Your task to perform on an android device: uninstall "Upside-Cash back on gas & food" Image 0: 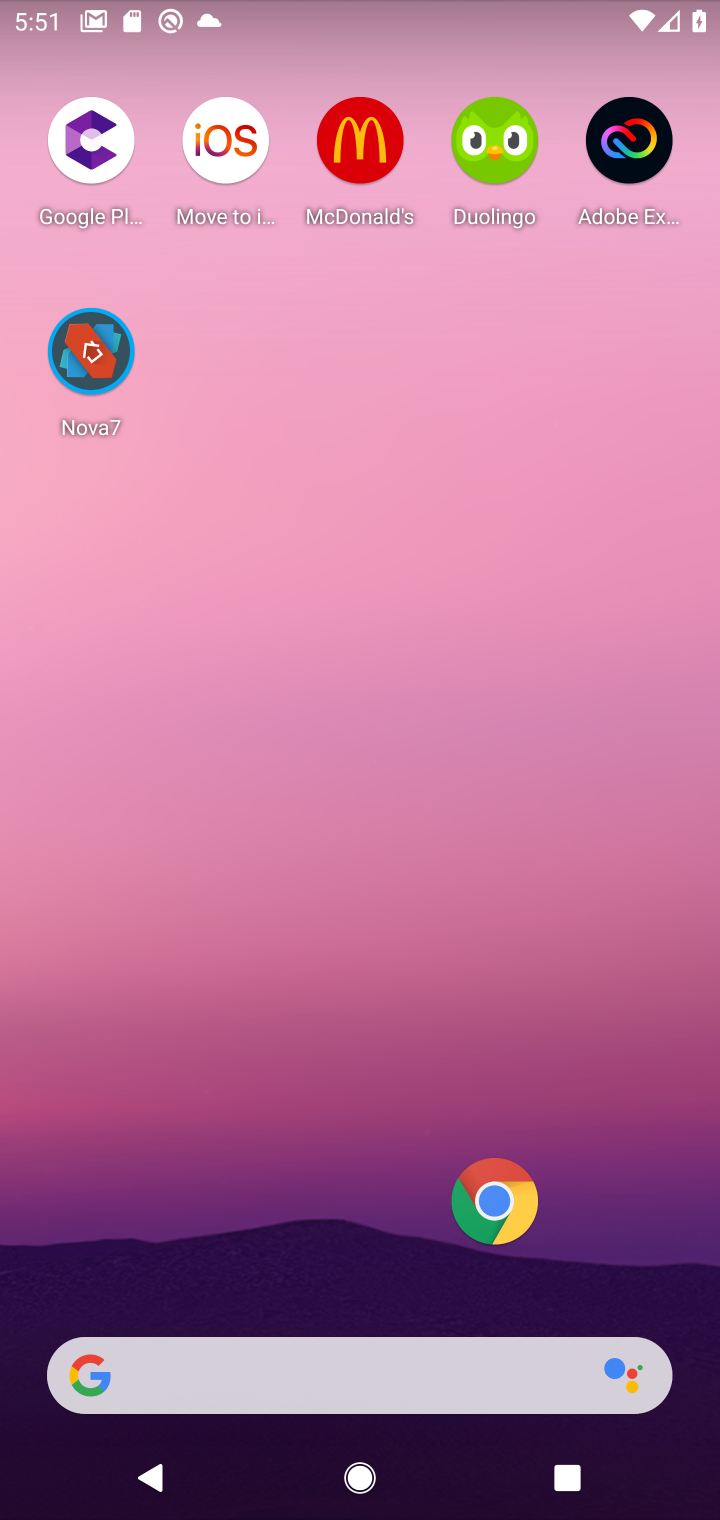
Step 0: drag from (331, 1221) to (352, 117)
Your task to perform on an android device: uninstall "Upside-Cash back on gas & food" Image 1: 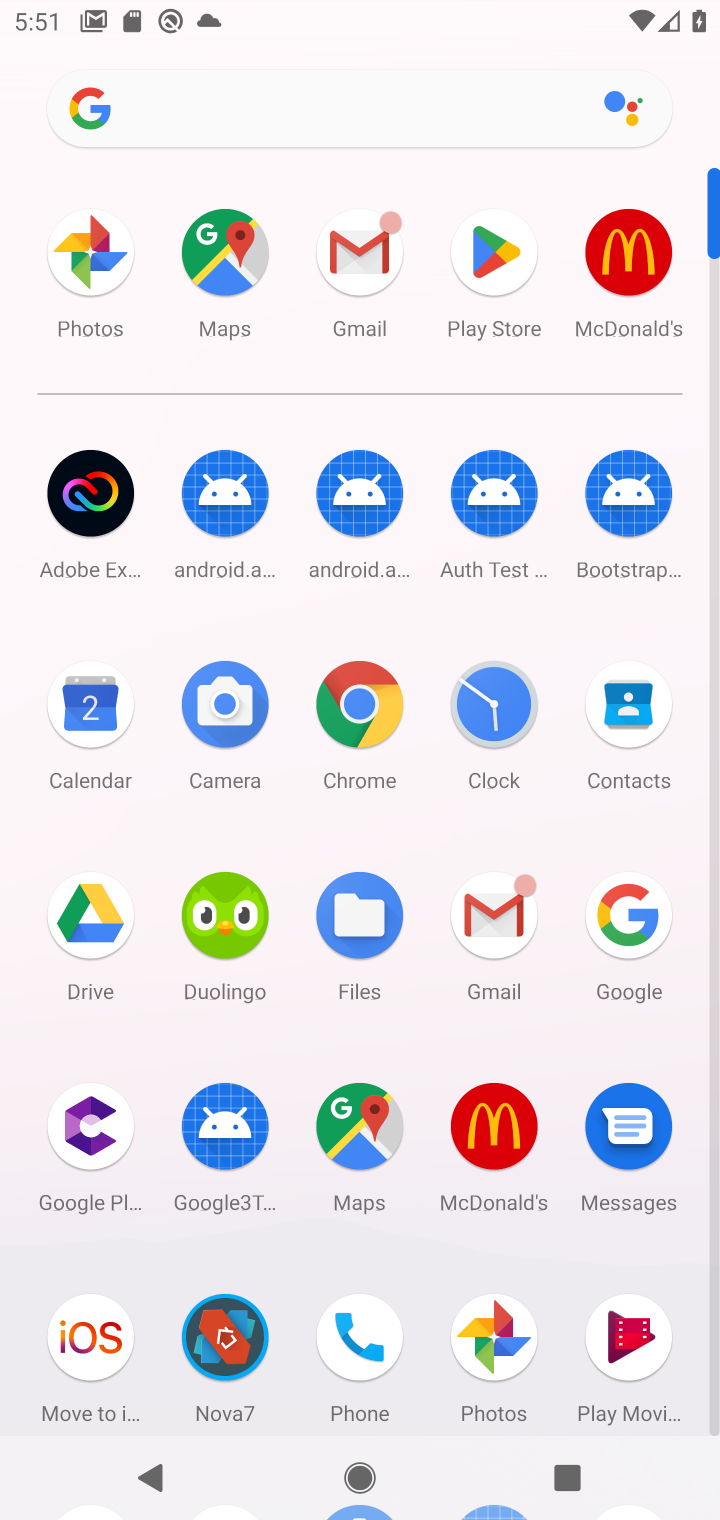
Step 1: click (459, 259)
Your task to perform on an android device: uninstall "Upside-Cash back on gas & food" Image 2: 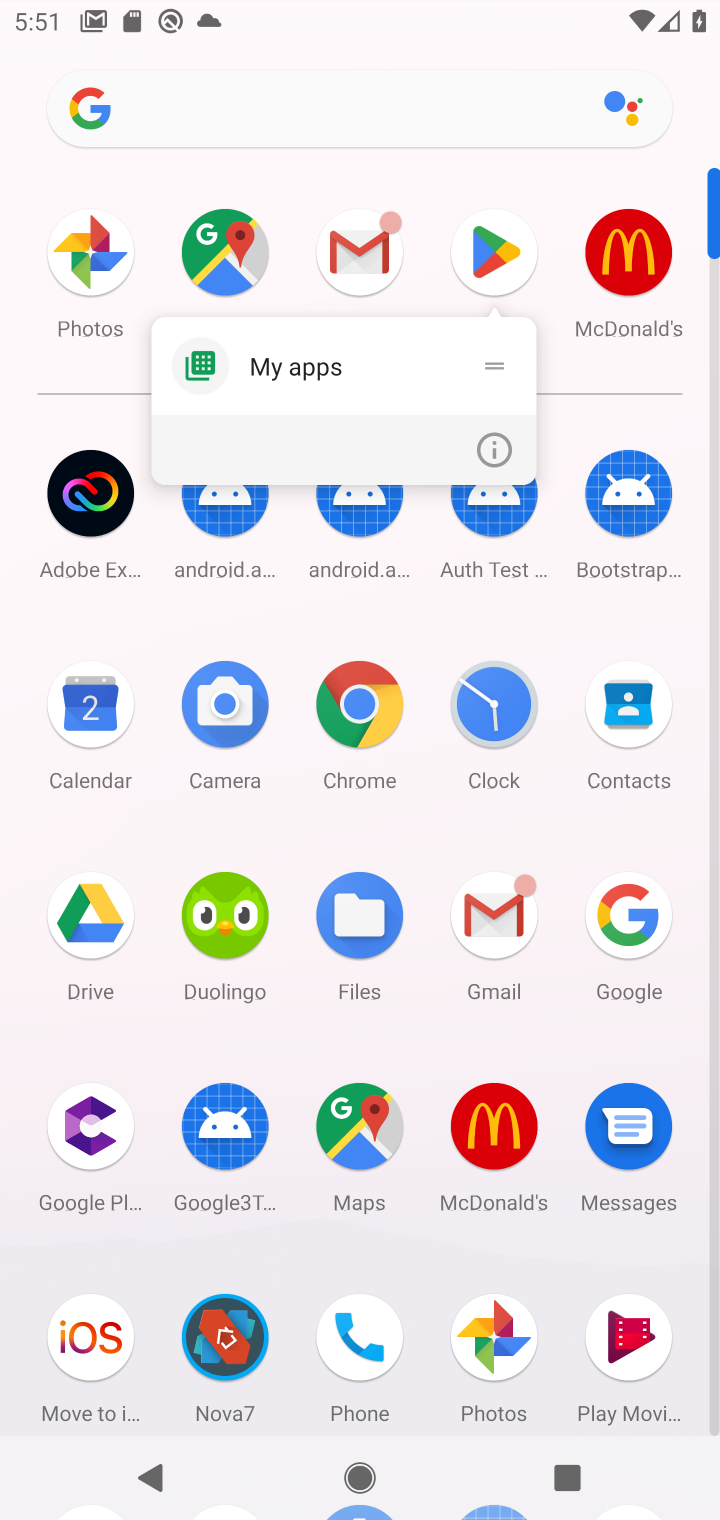
Step 2: click (508, 438)
Your task to perform on an android device: uninstall "Upside-Cash back on gas & food" Image 3: 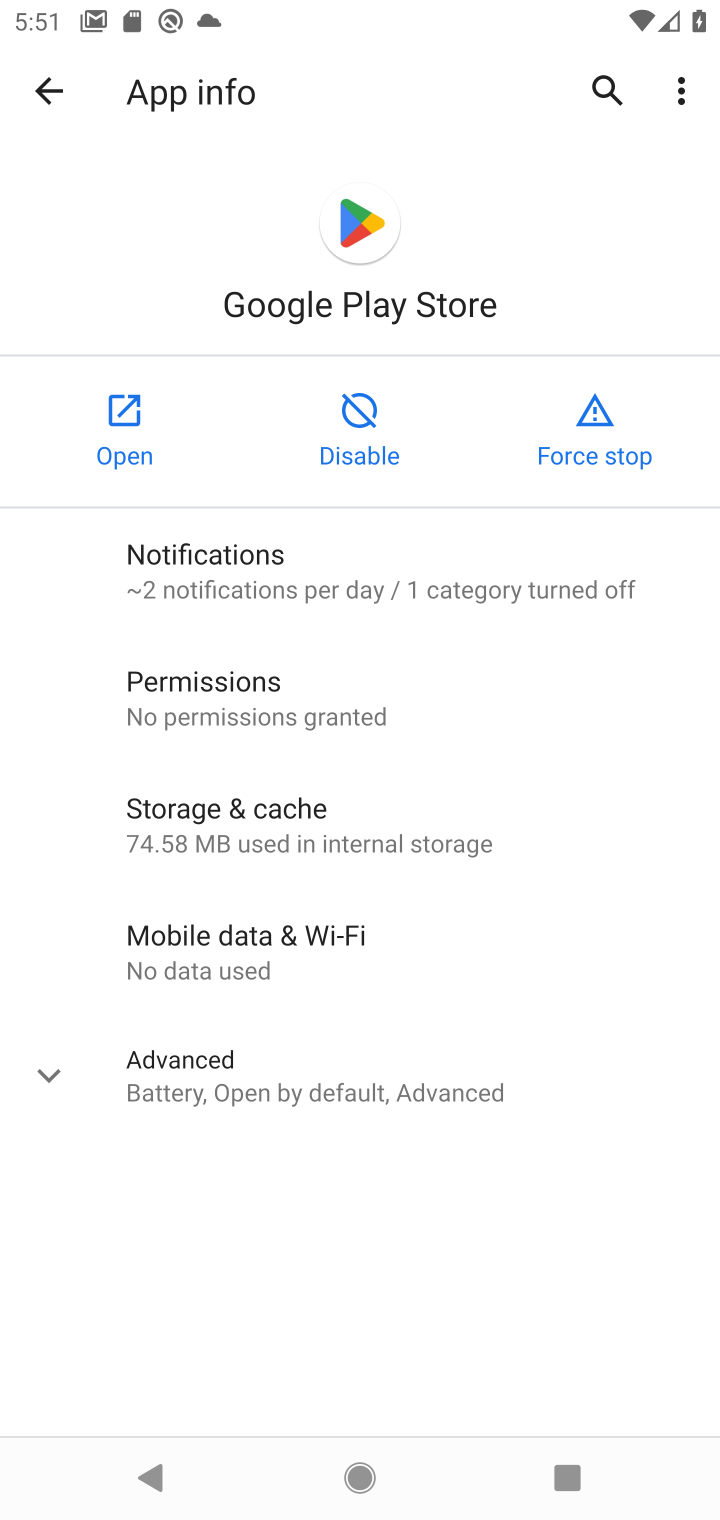
Step 3: click (101, 444)
Your task to perform on an android device: uninstall "Upside-Cash back on gas & food" Image 4: 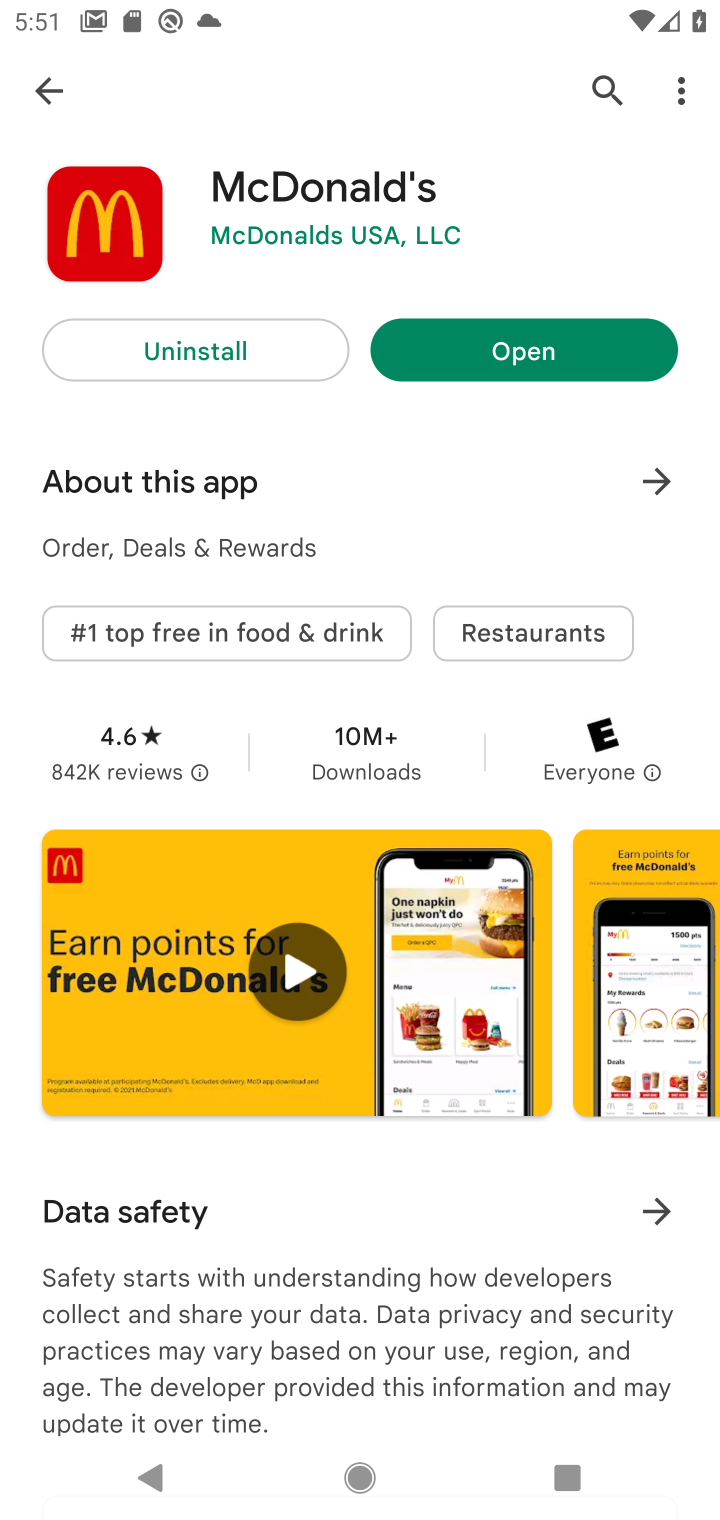
Step 4: click (595, 79)
Your task to perform on an android device: uninstall "Upside-Cash back on gas & food" Image 5: 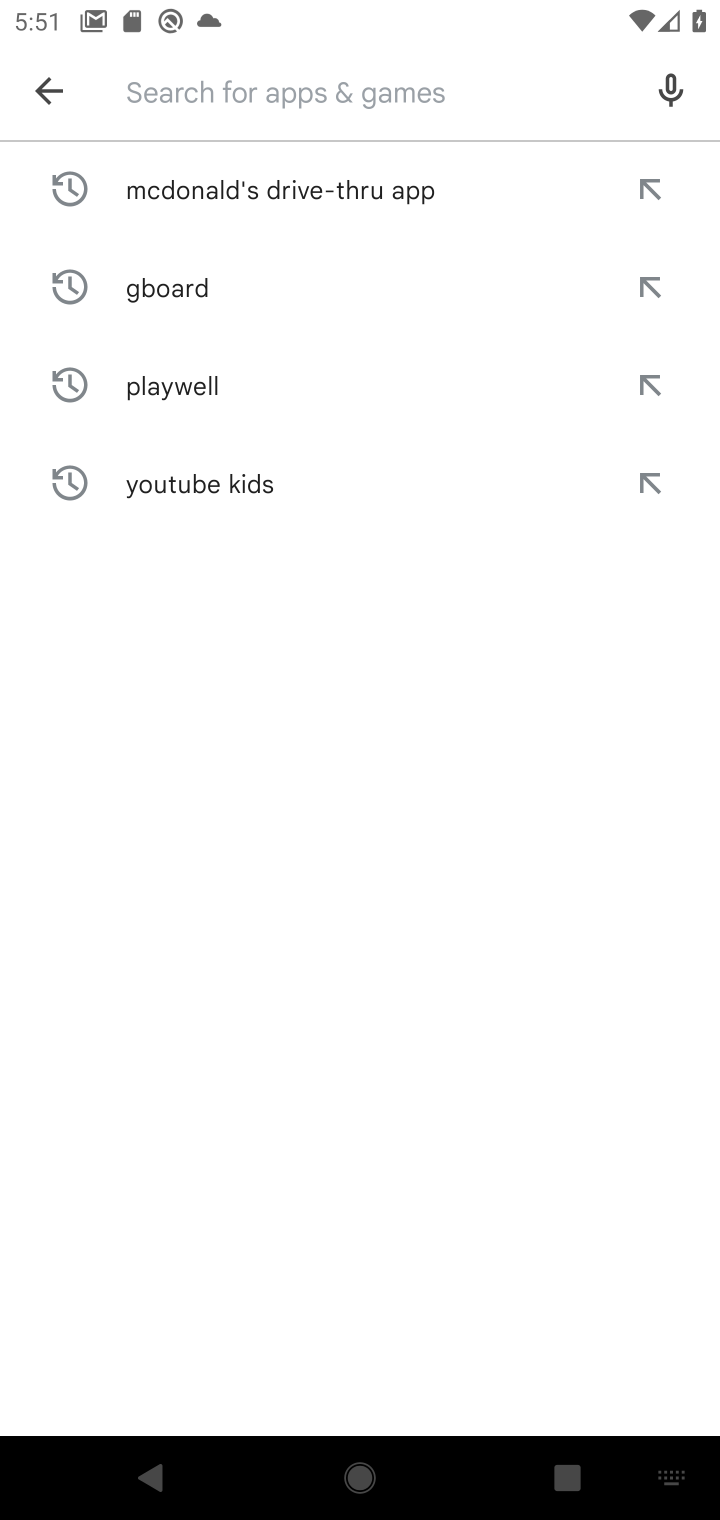
Step 5: type "Upside-Cash back on gas & food"
Your task to perform on an android device: uninstall "Upside-Cash back on gas & food" Image 6: 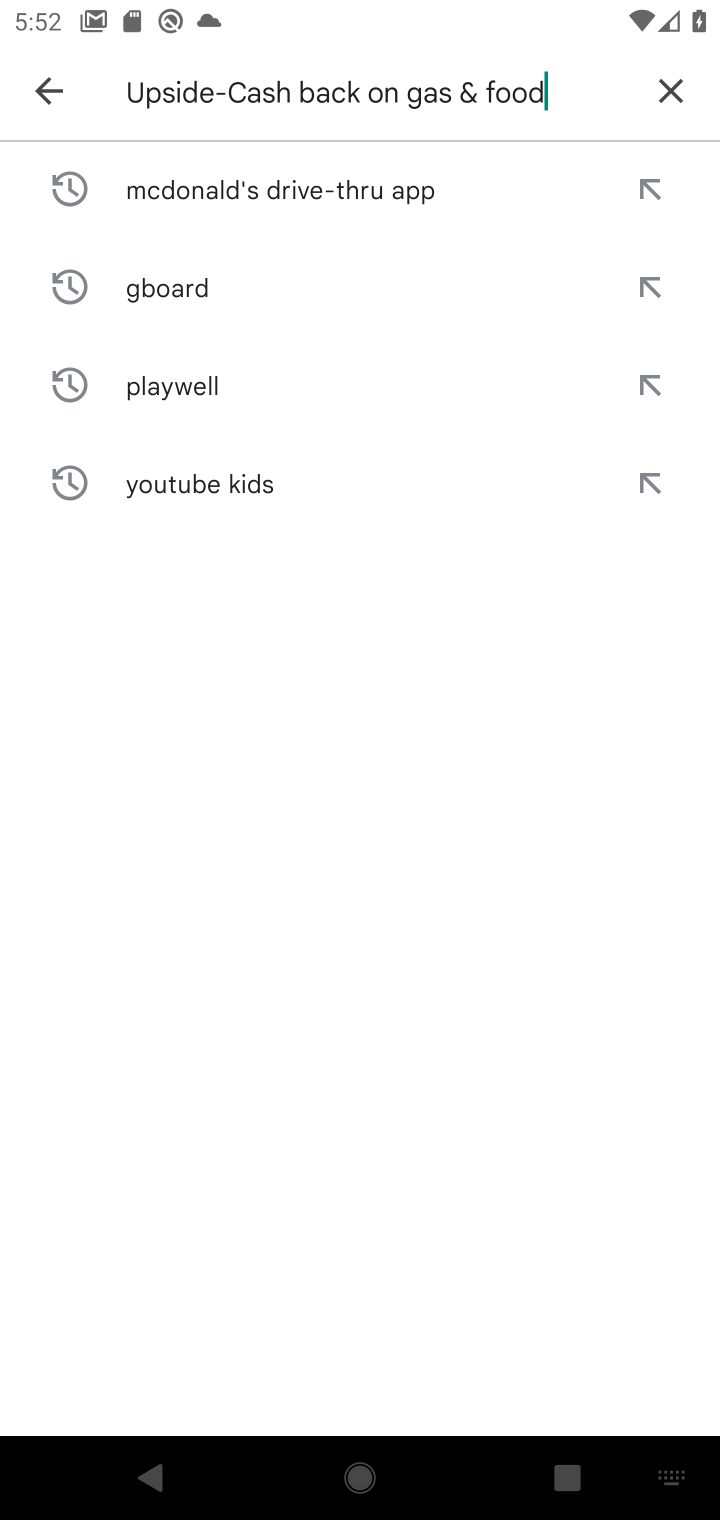
Step 6: type ""
Your task to perform on an android device: uninstall "Upside-Cash back on gas & food" Image 7: 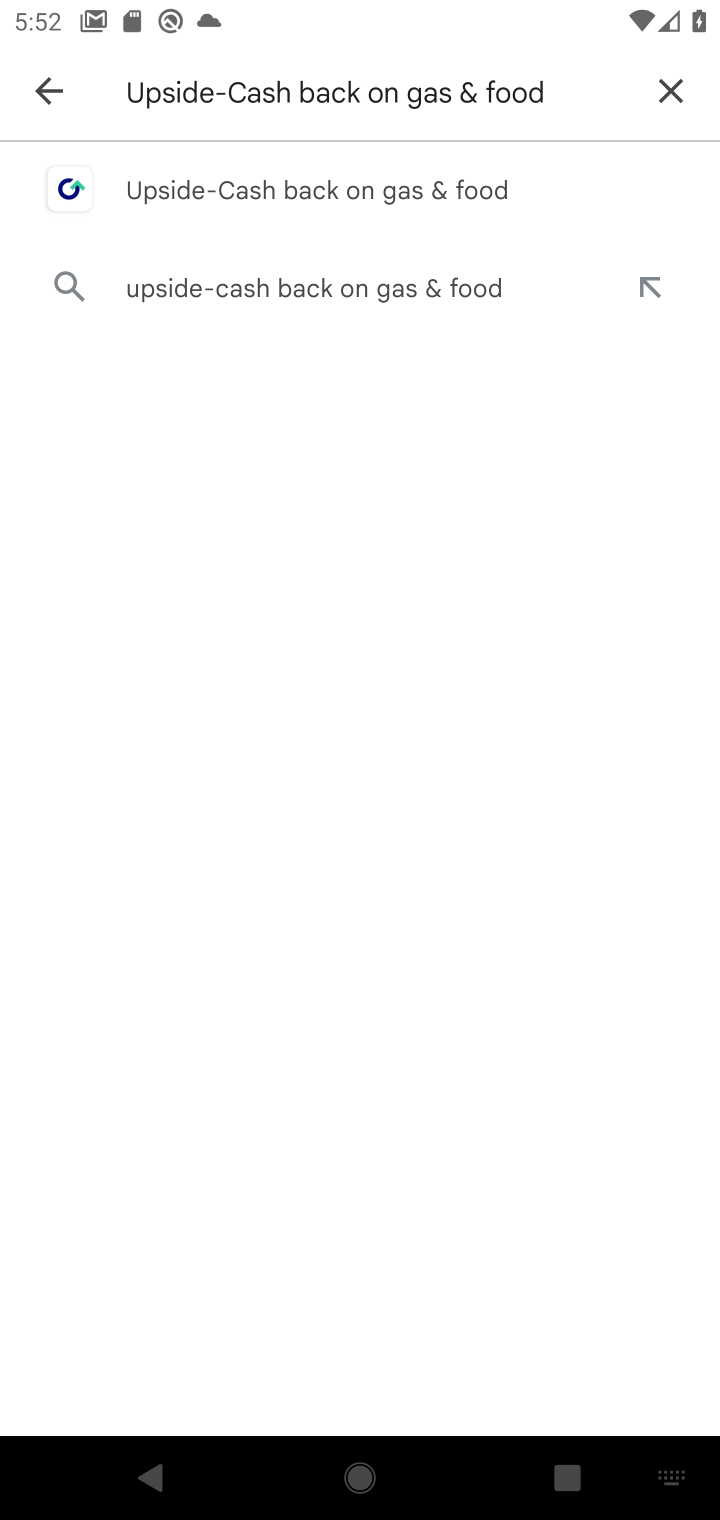
Step 7: click (323, 206)
Your task to perform on an android device: uninstall "Upside-Cash back on gas & food" Image 8: 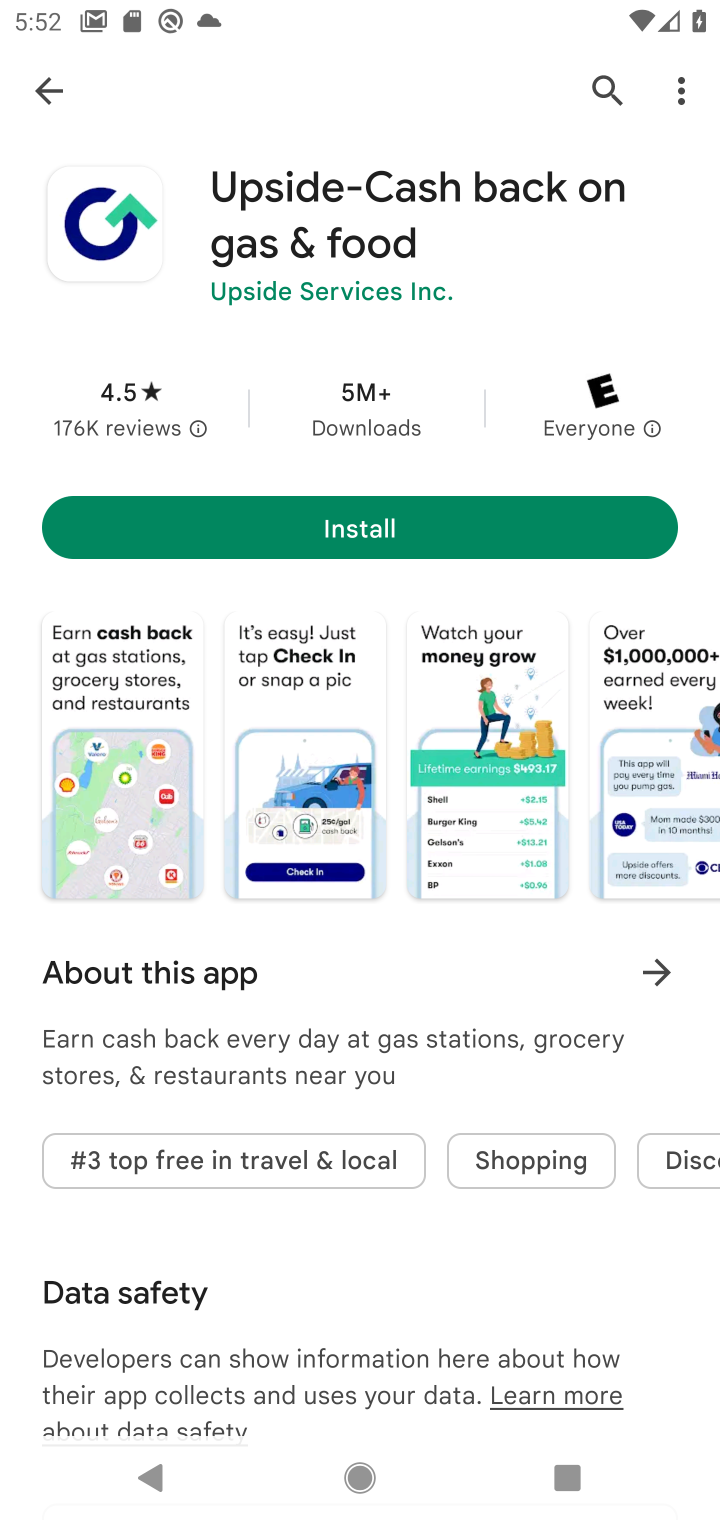
Step 8: drag from (493, 338) to (580, 1512)
Your task to perform on an android device: uninstall "Upside-Cash back on gas & food" Image 9: 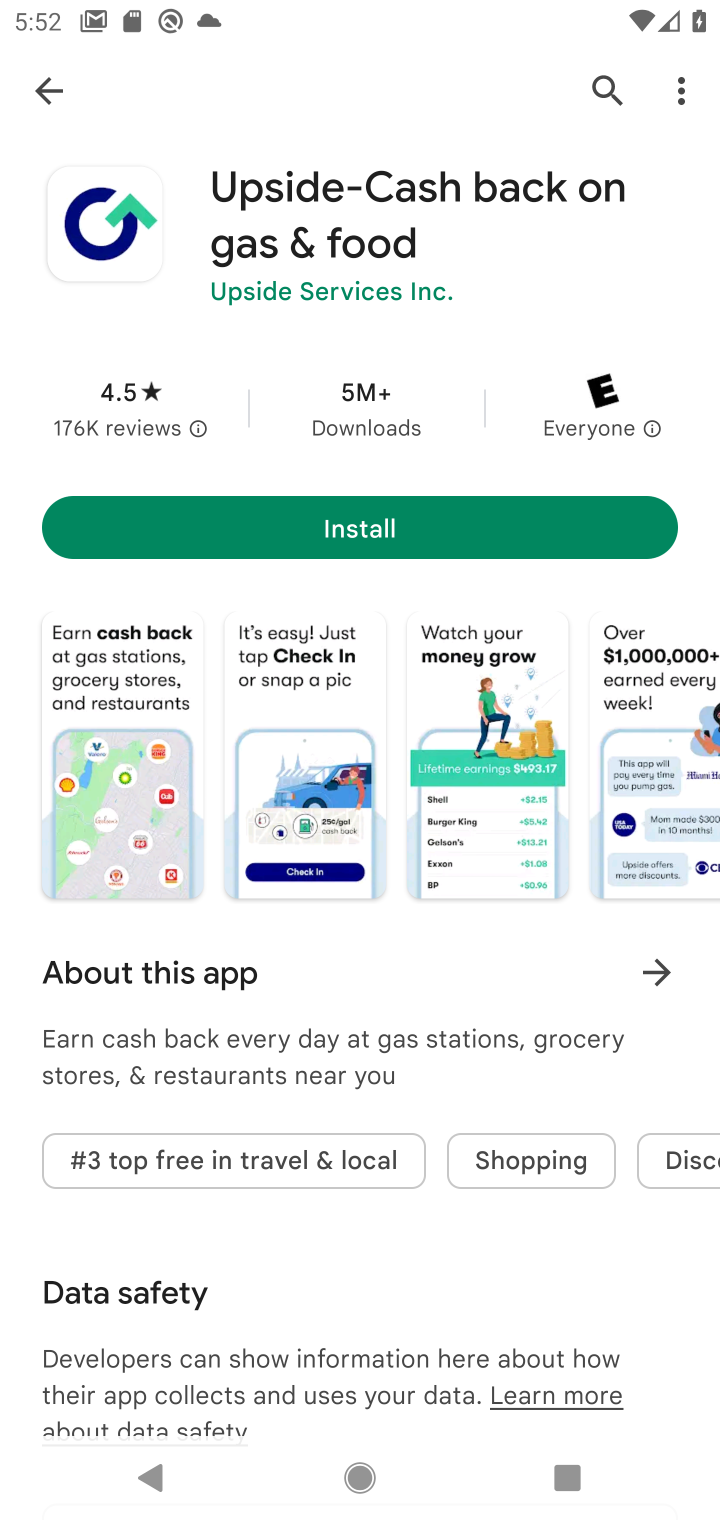
Step 9: drag from (394, 786) to (427, 1389)
Your task to perform on an android device: uninstall "Upside-Cash back on gas & food" Image 10: 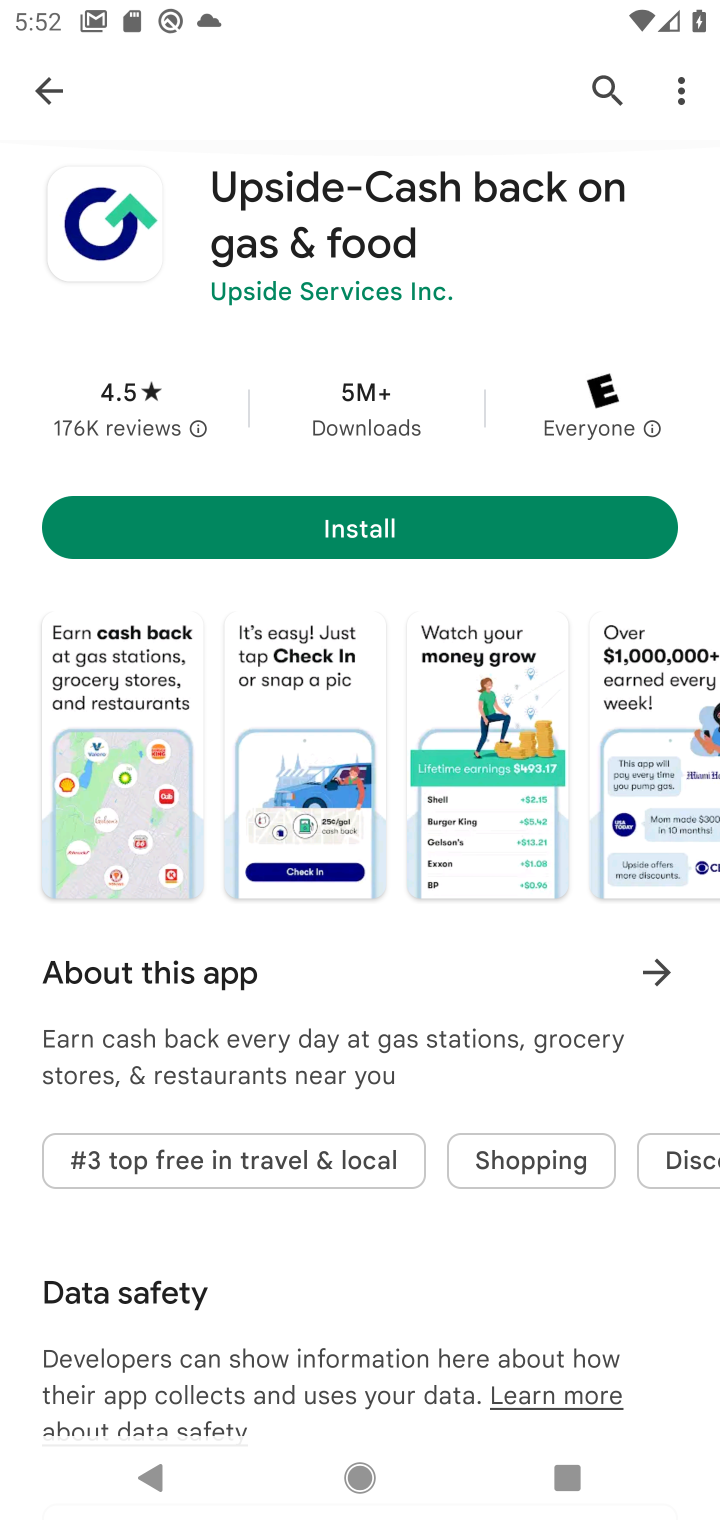
Step 10: drag from (439, 1280) to (533, 579)
Your task to perform on an android device: uninstall "Upside-Cash back on gas & food" Image 11: 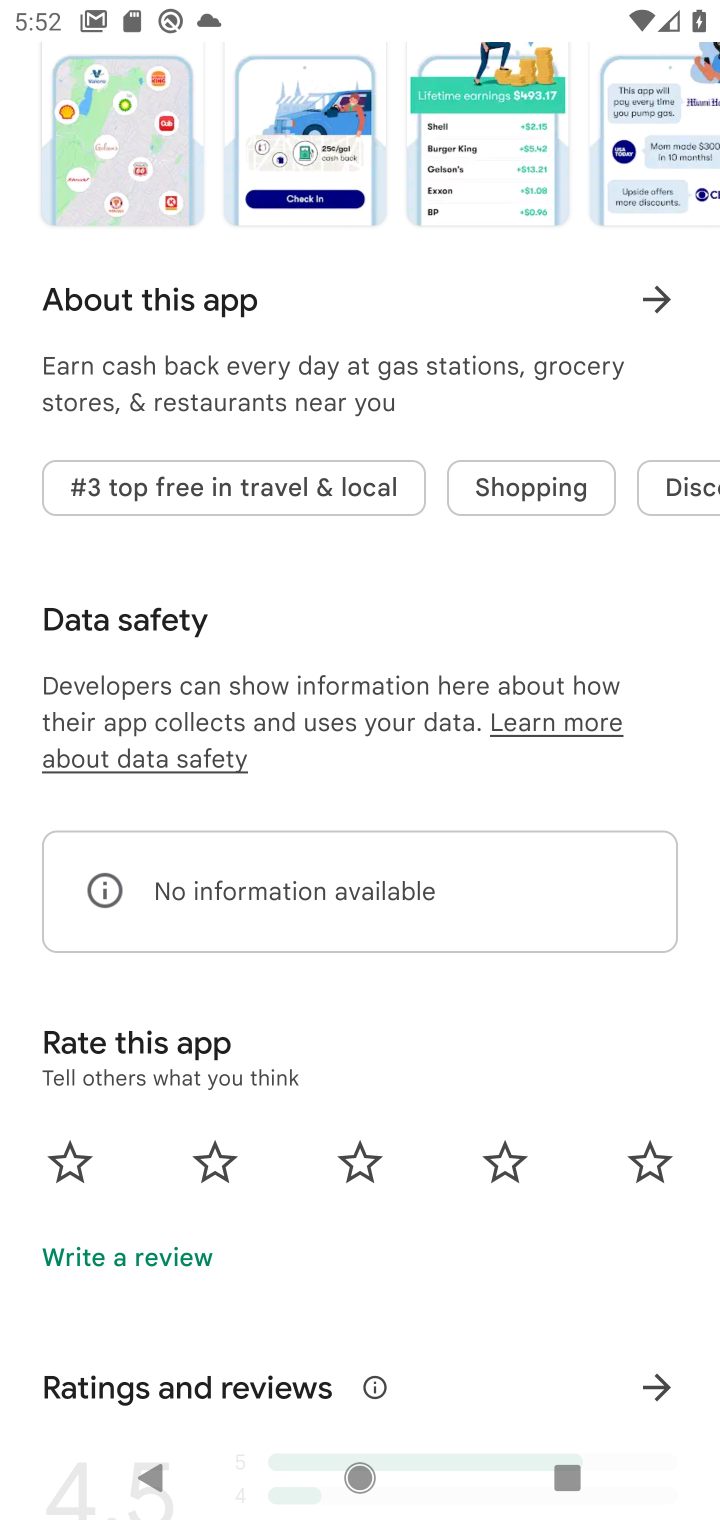
Step 11: drag from (434, 645) to (571, 1494)
Your task to perform on an android device: uninstall "Upside-Cash back on gas & food" Image 12: 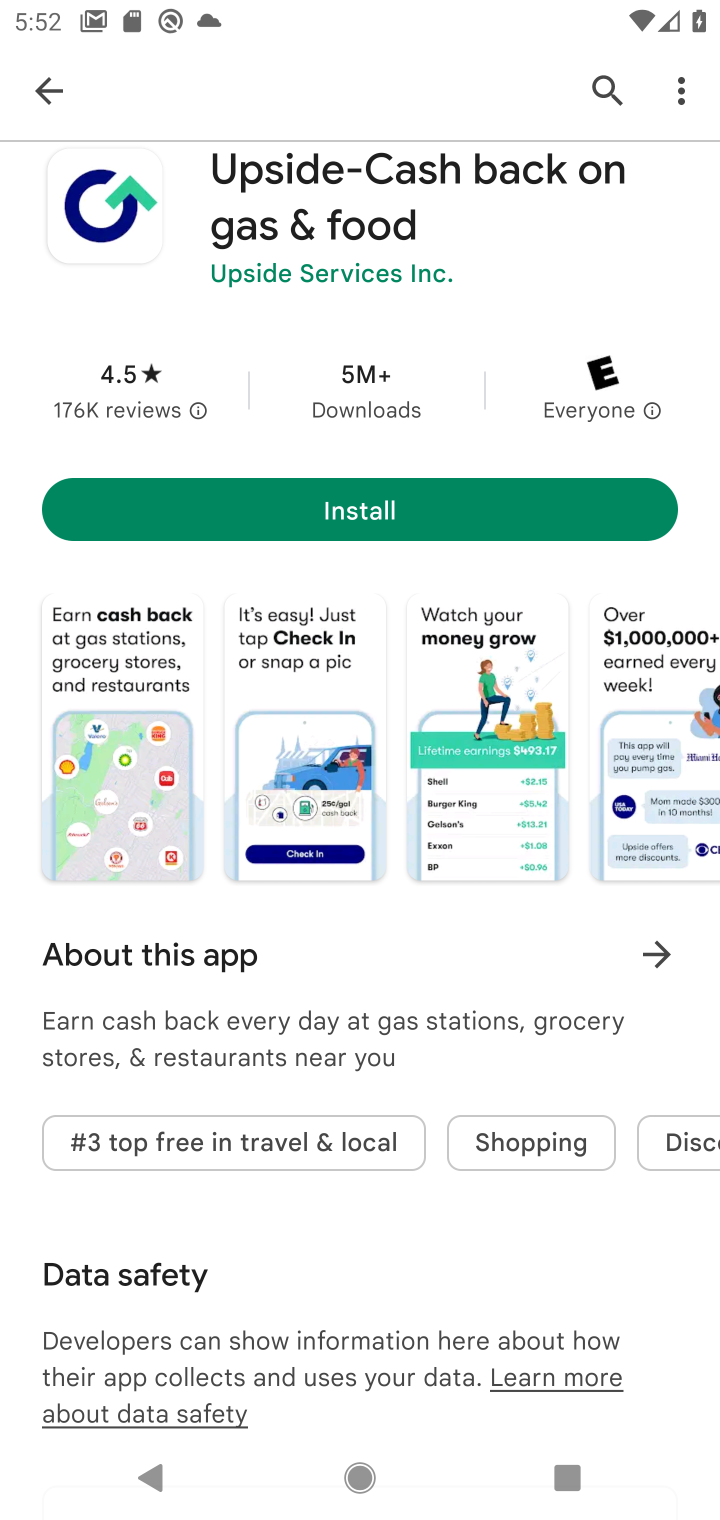
Step 12: drag from (376, 332) to (506, 1297)
Your task to perform on an android device: uninstall "Upside-Cash back on gas & food" Image 13: 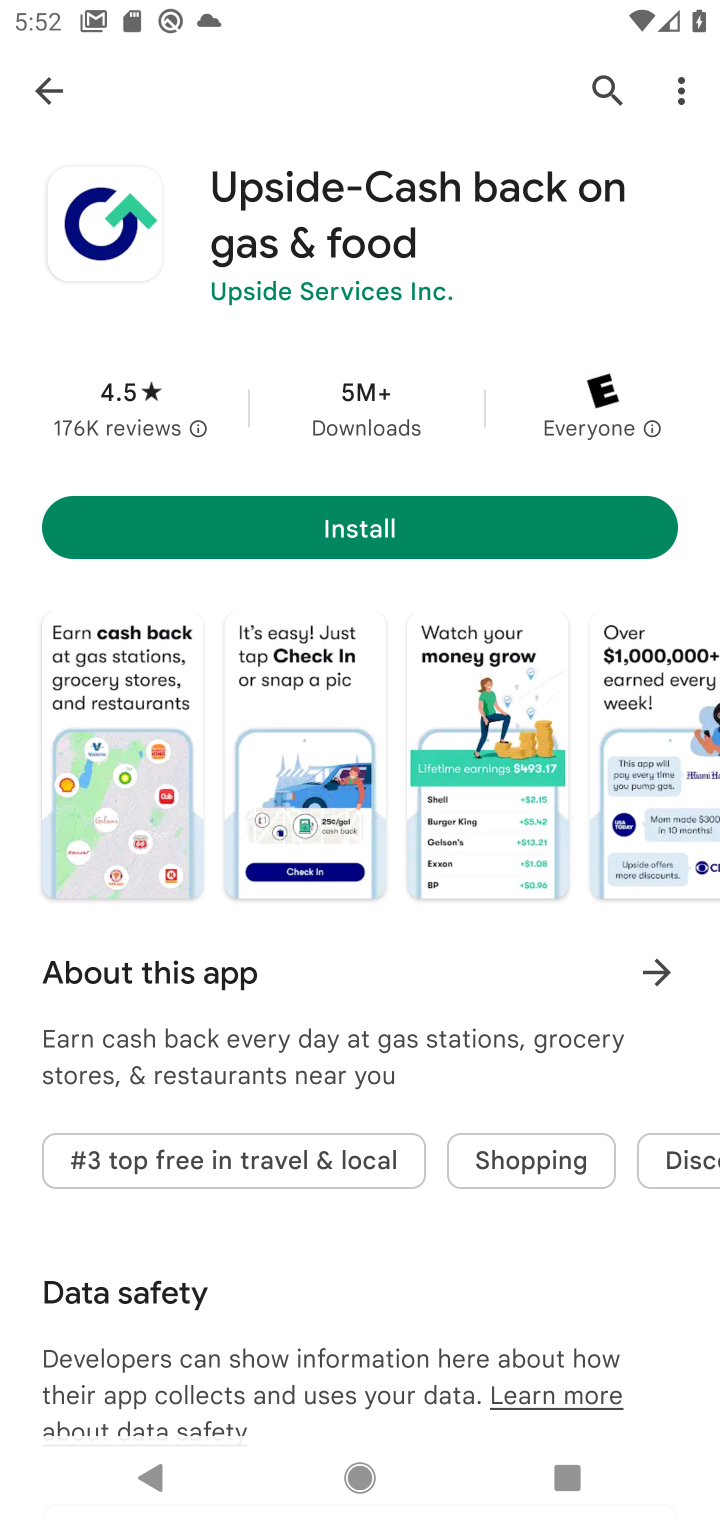
Step 13: drag from (520, 483) to (720, 1133)
Your task to perform on an android device: uninstall "Upside-Cash back on gas & food" Image 14: 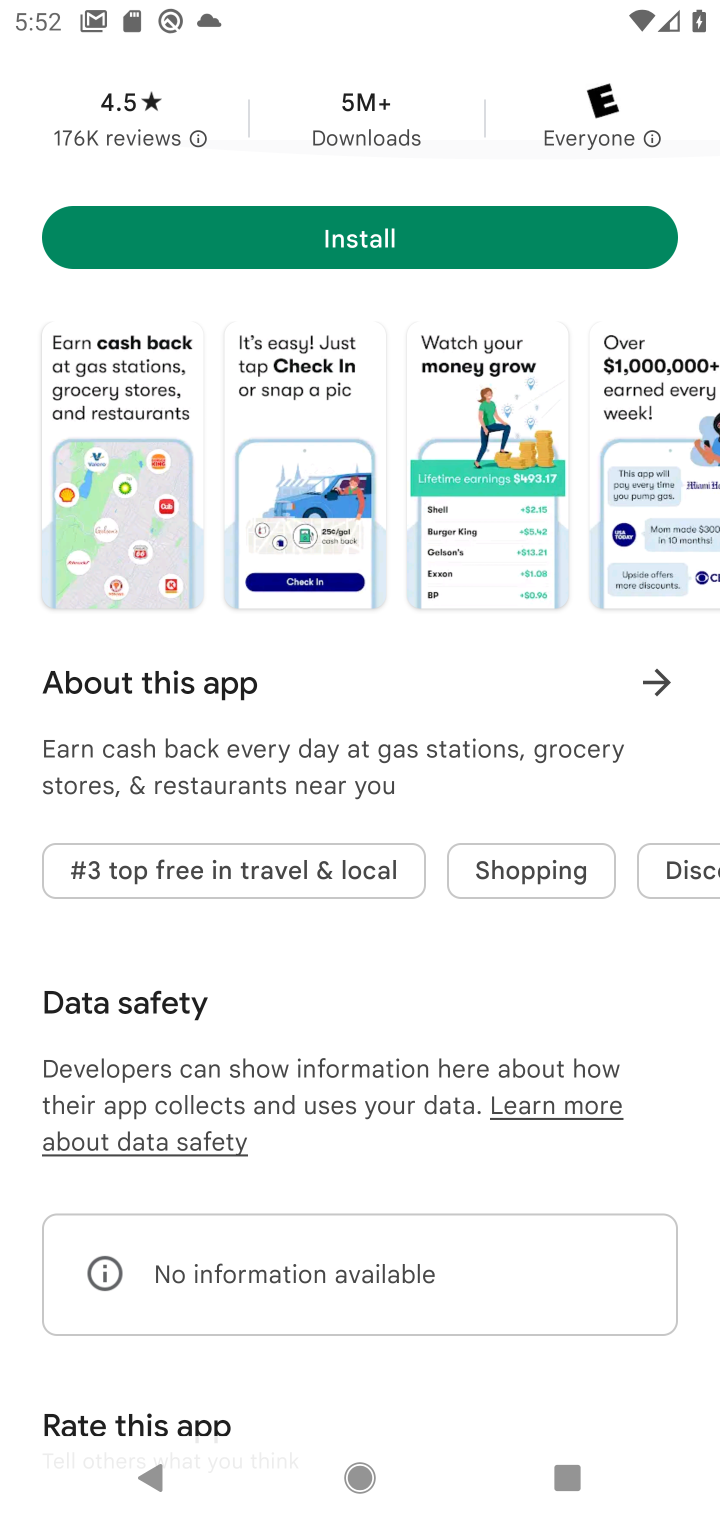
Step 14: drag from (527, 714) to (530, 1359)
Your task to perform on an android device: uninstall "Upside-Cash back on gas & food" Image 15: 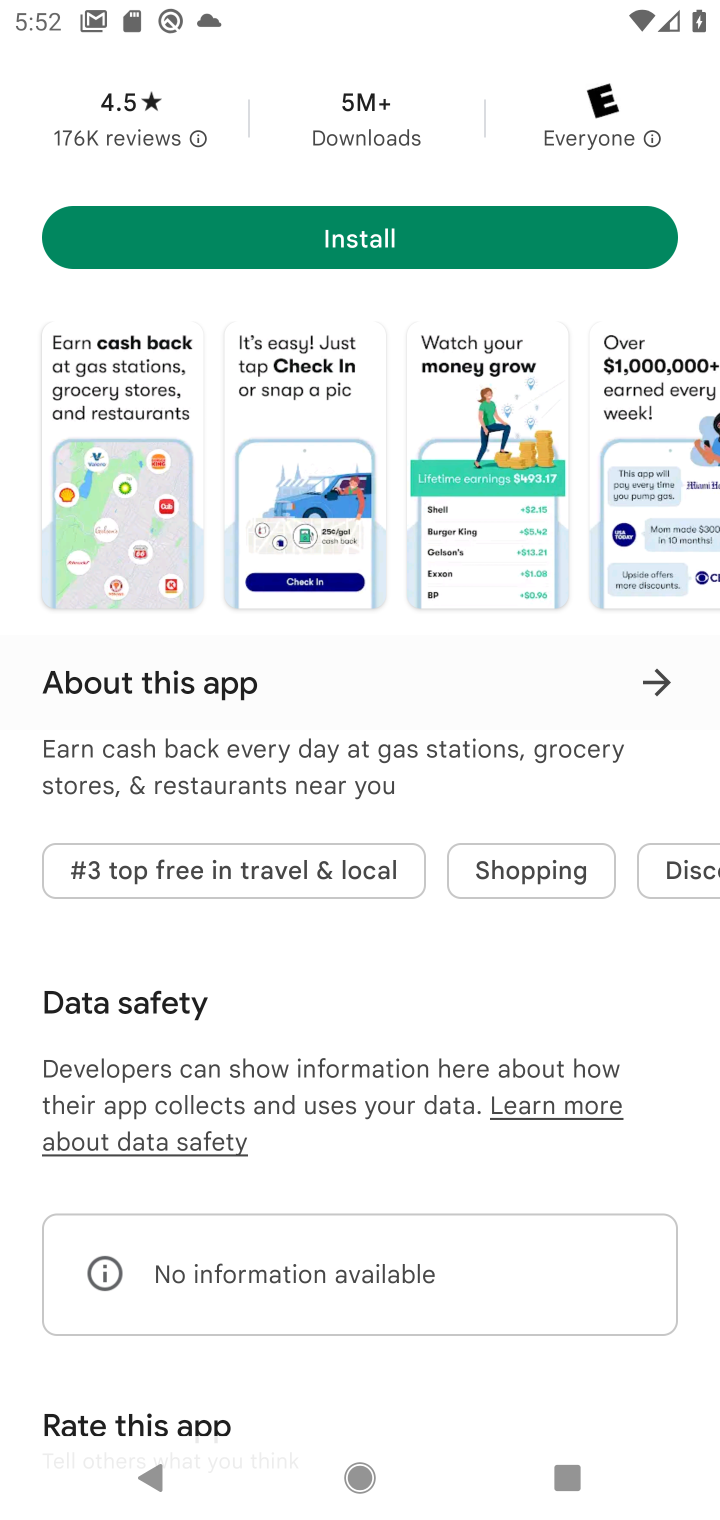
Step 15: drag from (506, 1087) to (549, 533)
Your task to perform on an android device: uninstall "Upside-Cash back on gas & food" Image 16: 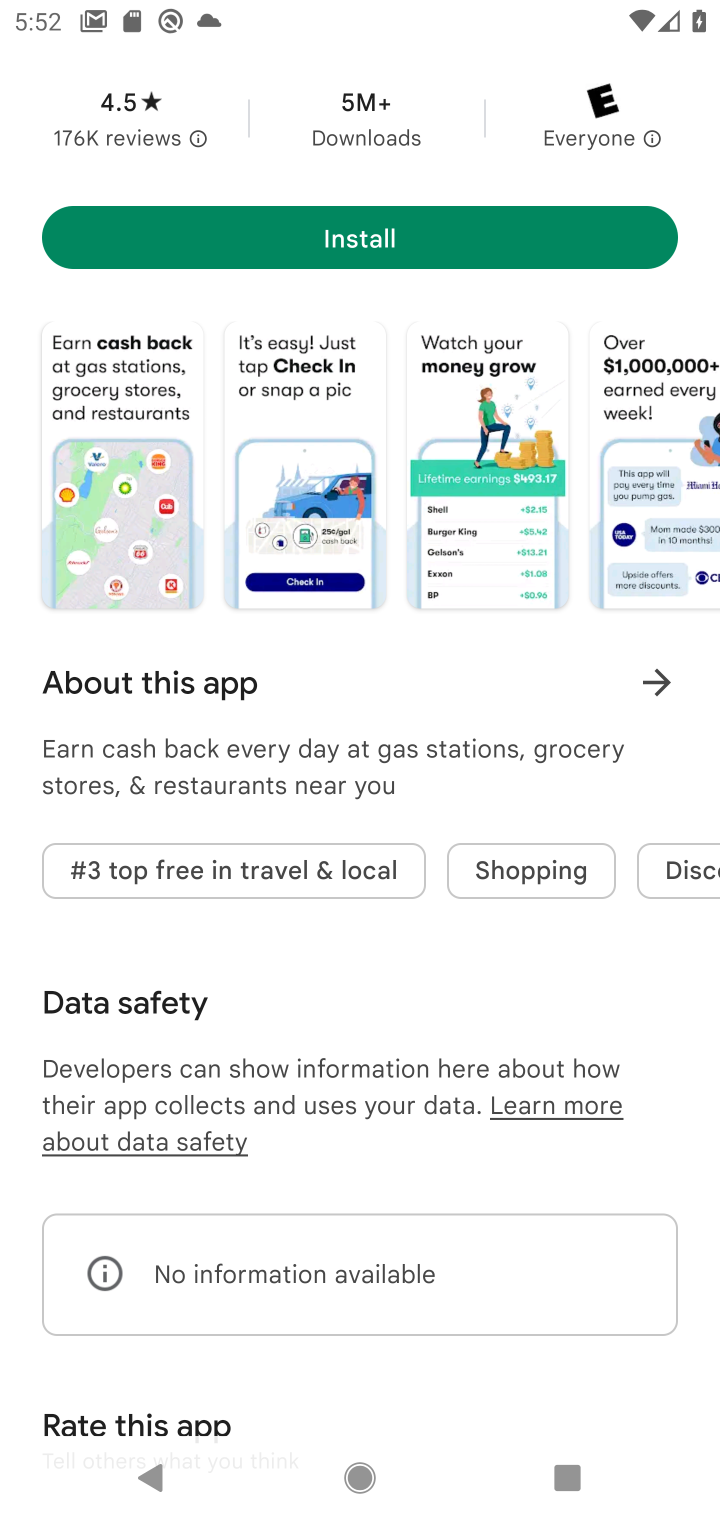
Step 16: drag from (558, 485) to (626, 1508)
Your task to perform on an android device: uninstall "Upside-Cash back on gas & food" Image 17: 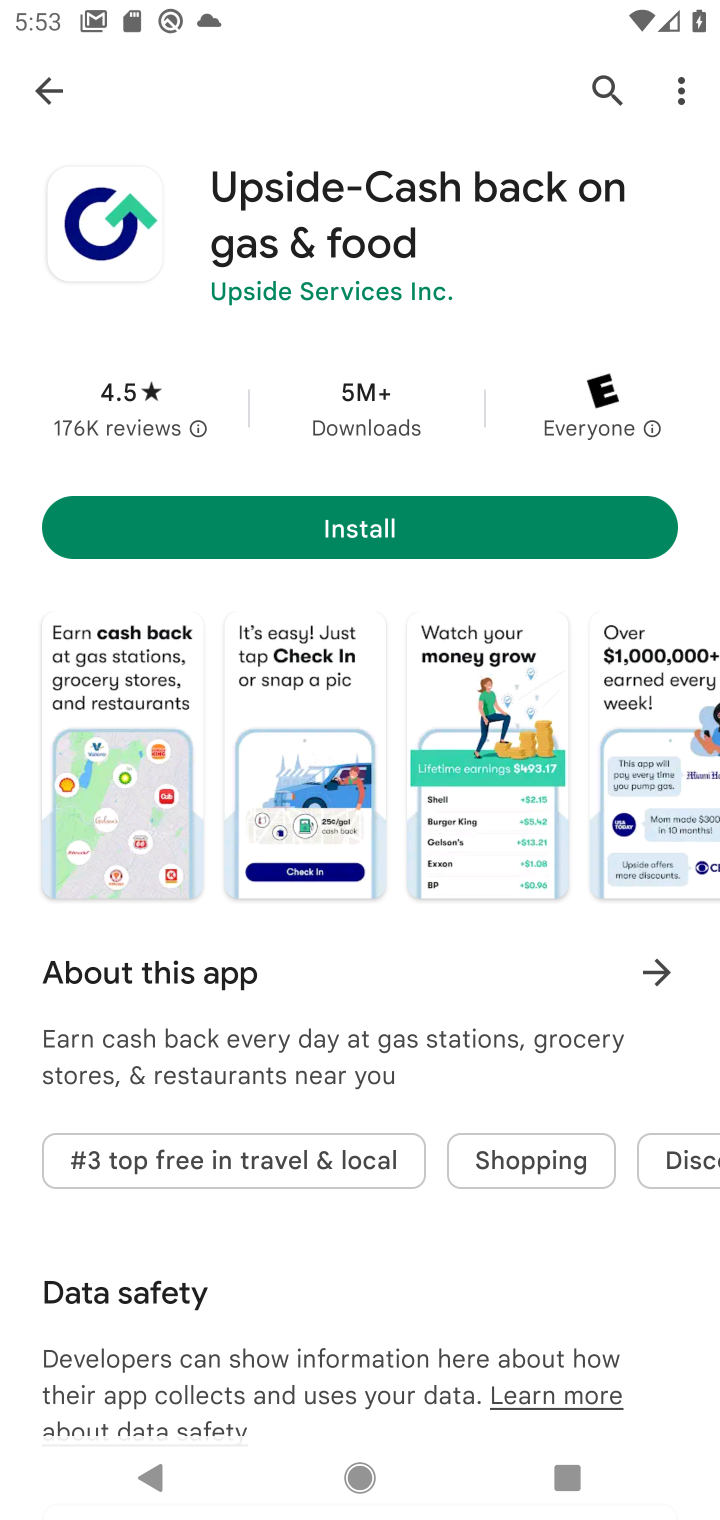
Step 17: click (606, 85)
Your task to perform on an android device: uninstall "Upside-Cash back on gas & food" Image 18: 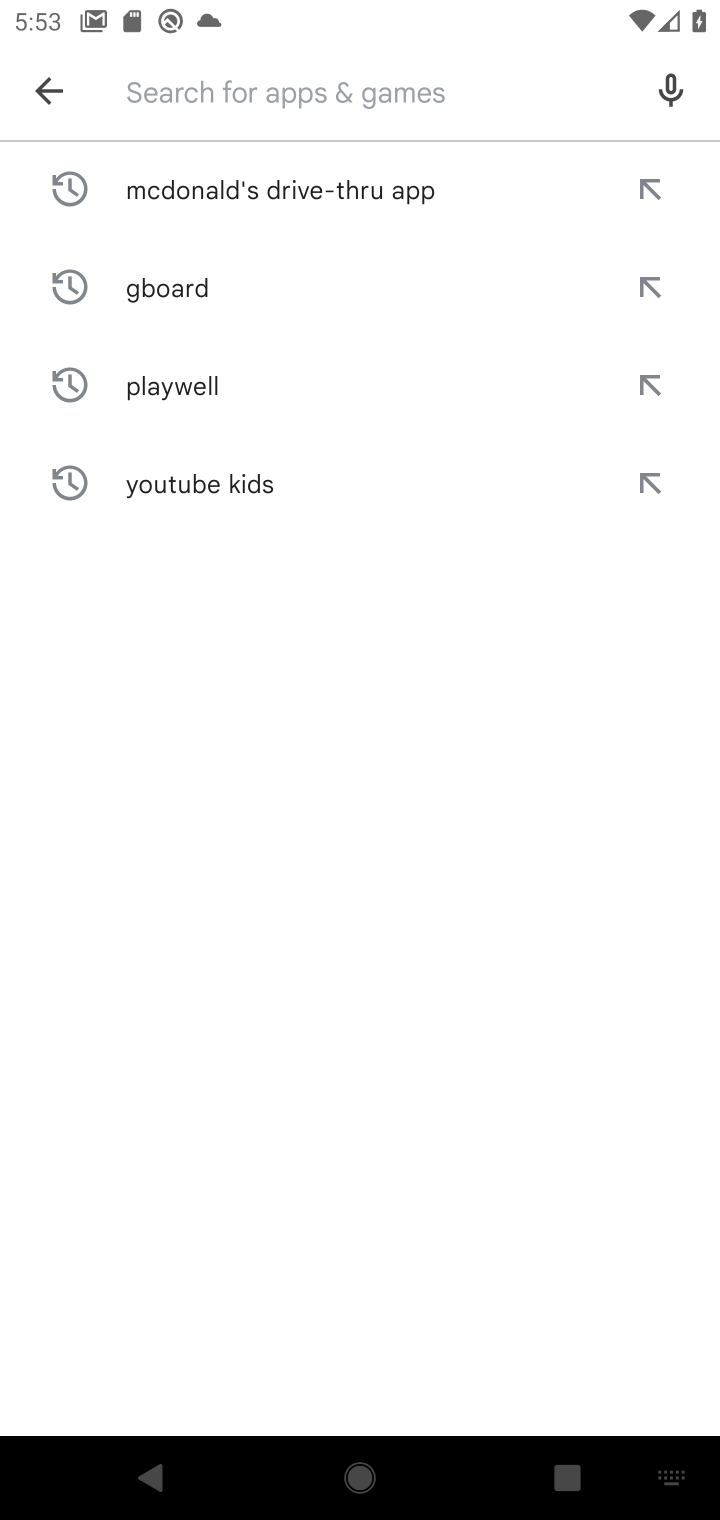
Step 18: type "Upside-Cash back on gas & food"
Your task to perform on an android device: uninstall "Upside-Cash back on gas & food" Image 19: 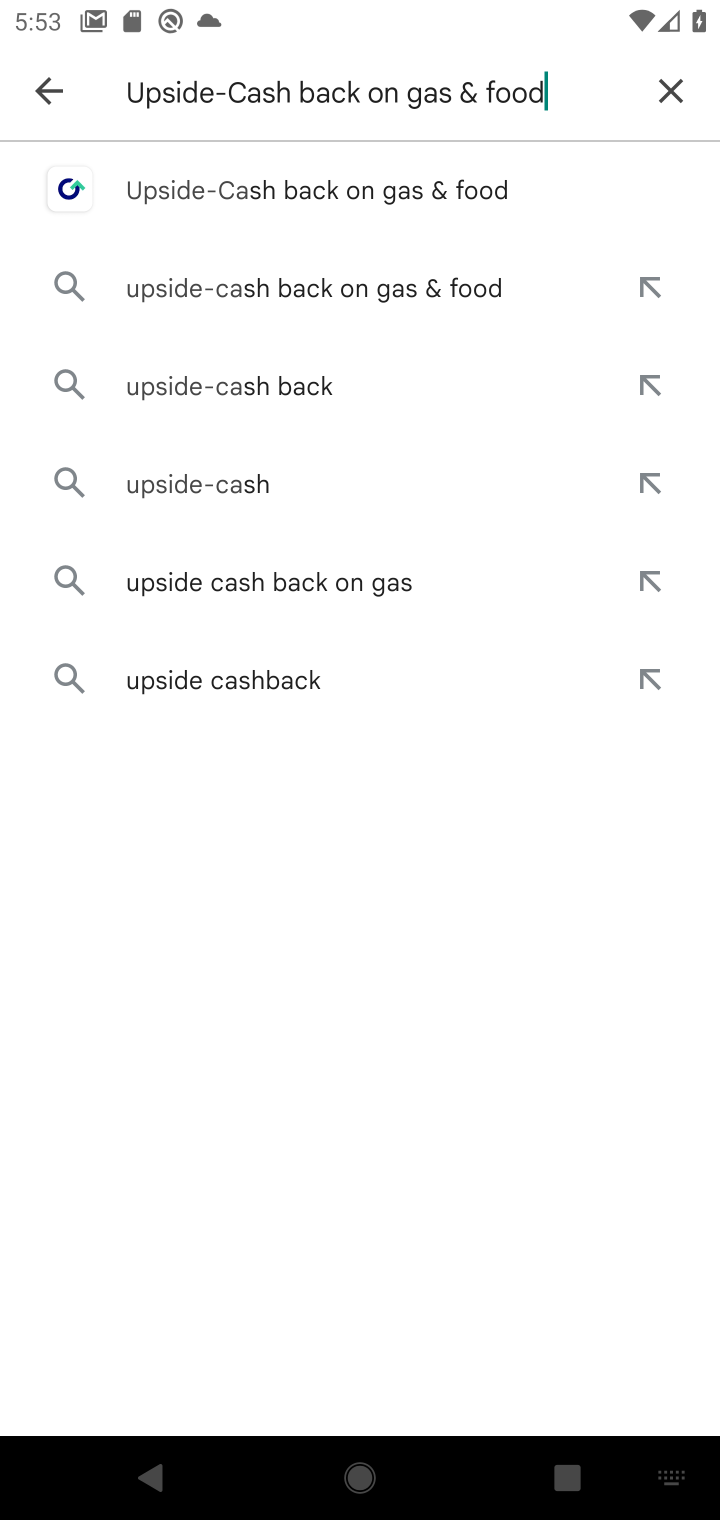
Step 19: type ""
Your task to perform on an android device: uninstall "Upside-Cash back on gas & food" Image 20: 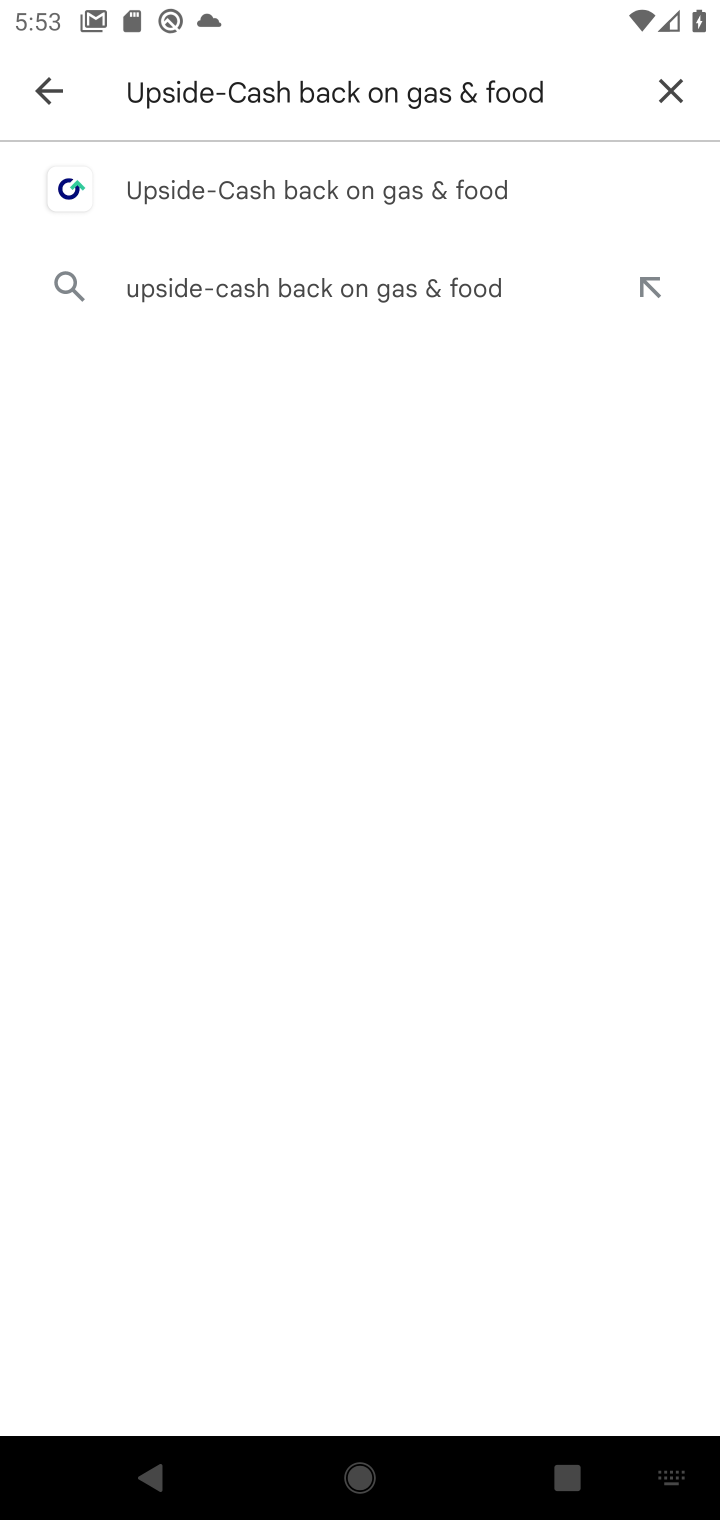
Step 20: click (174, 192)
Your task to perform on an android device: uninstall "Upside-Cash back on gas & food" Image 21: 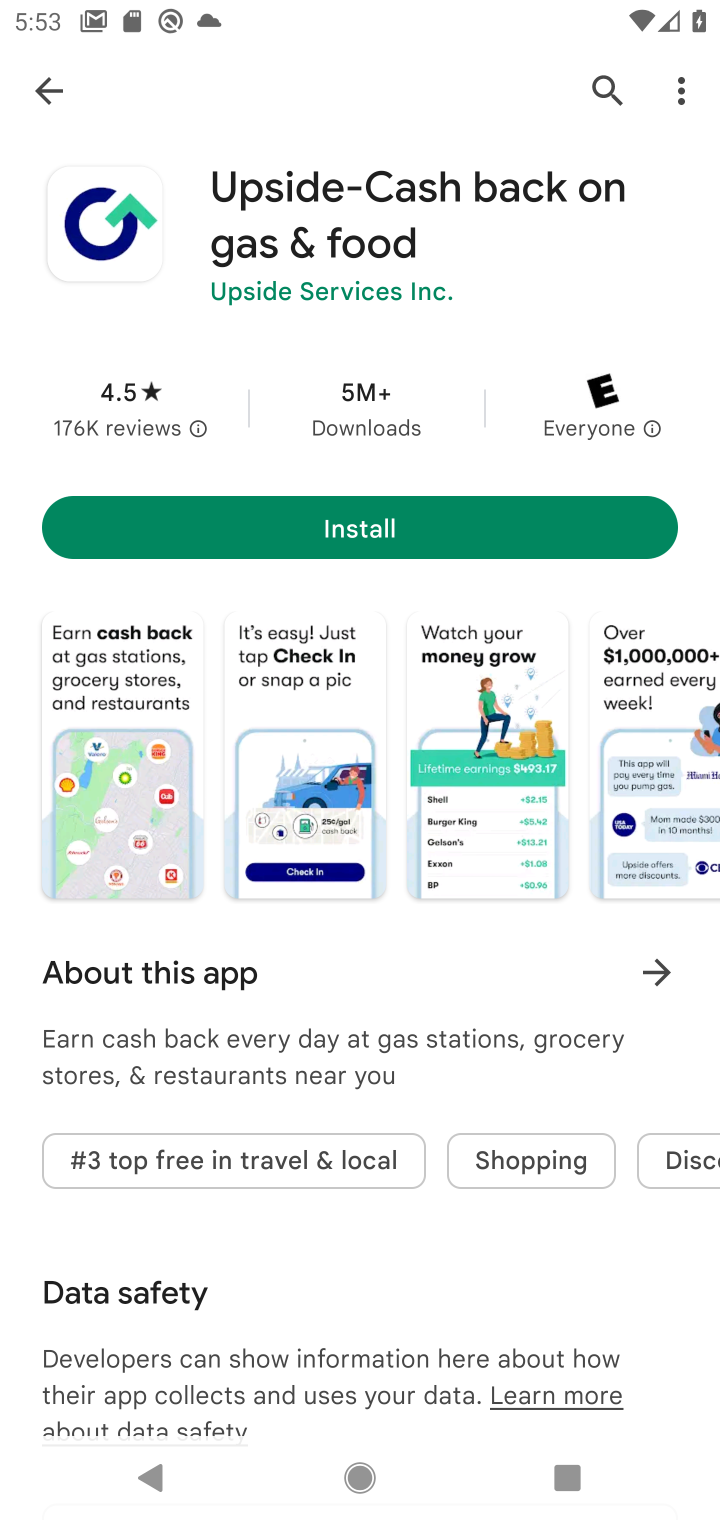
Step 21: task complete